Your task to perform on an android device: empty trash in the gmail app Image 0: 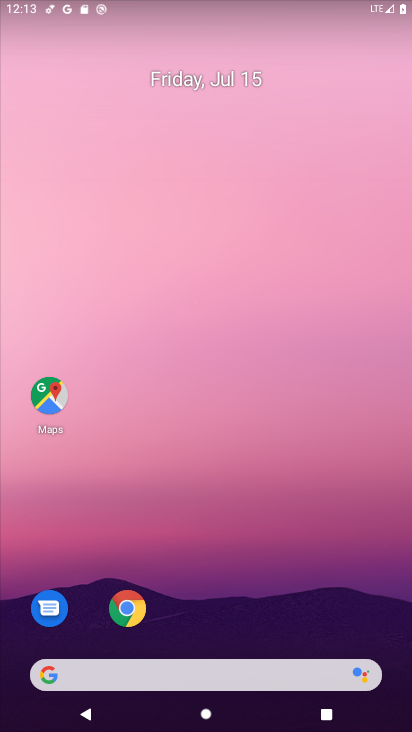
Step 0: drag from (214, 536) to (84, 97)
Your task to perform on an android device: empty trash in the gmail app Image 1: 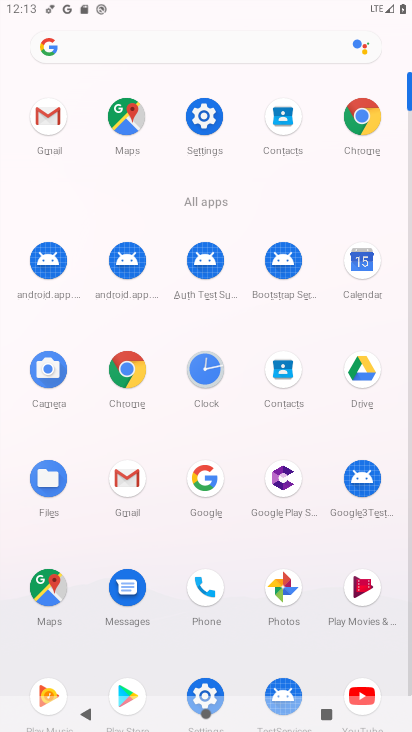
Step 1: click (41, 114)
Your task to perform on an android device: empty trash in the gmail app Image 2: 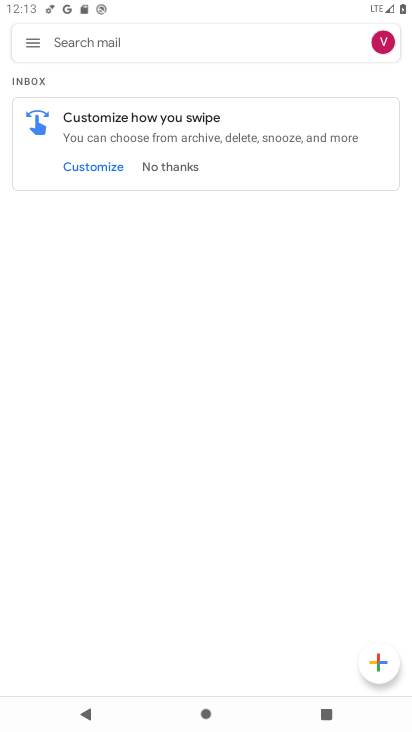
Step 2: click (34, 41)
Your task to perform on an android device: empty trash in the gmail app Image 3: 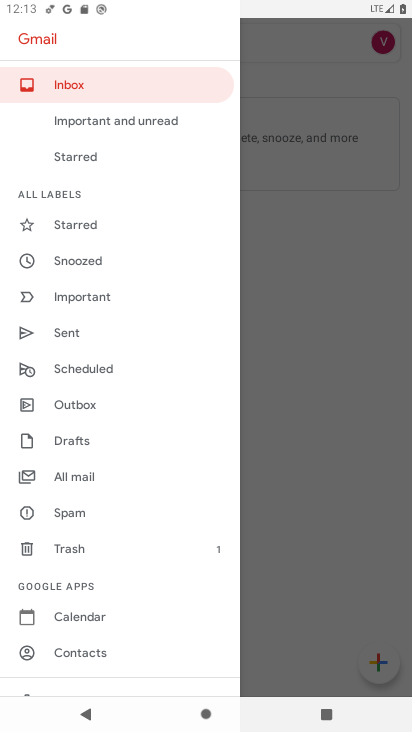
Step 3: click (71, 548)
Your task to perform on an android device: empty trash in the gmail app Image 4: 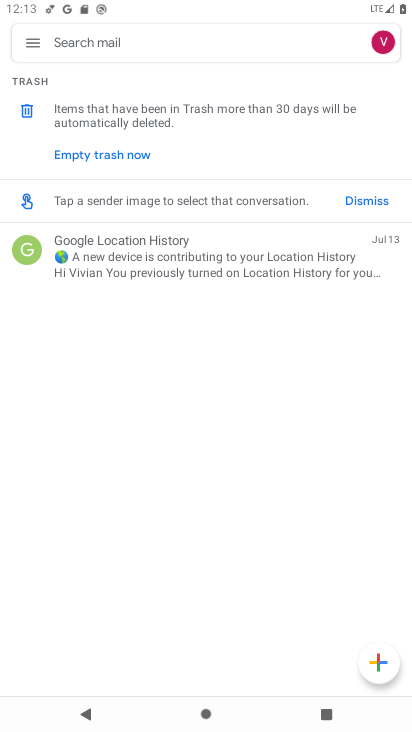
Step 4: click (103, 152)
Your task to perform on an android device: empty trash in the gmail app Image 5: 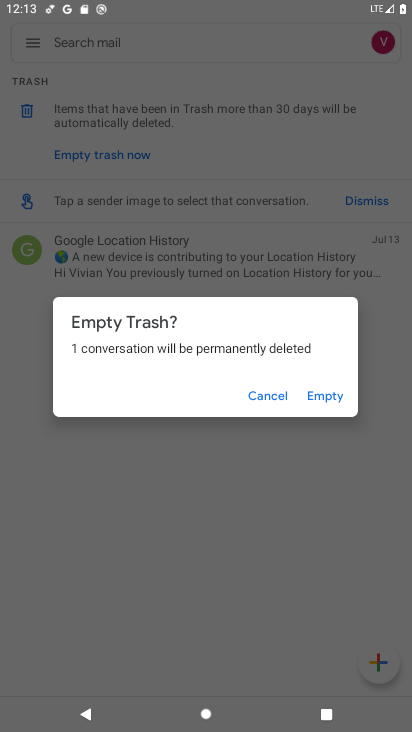
Step 5: click (317, 396)
Your task to perform on an android device: empty trash in the gmail app Image 6: 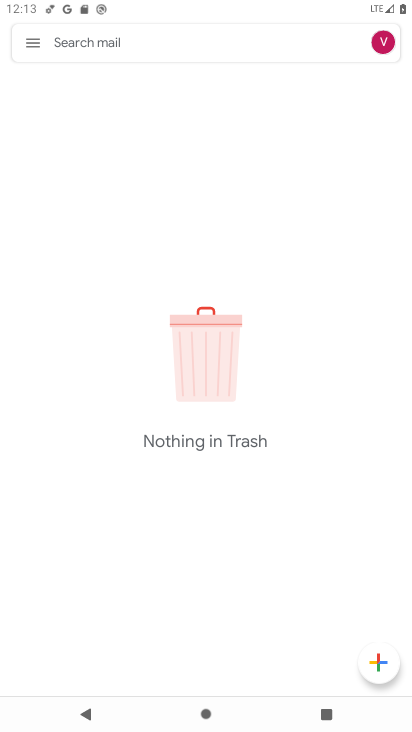
Step 6: task complete